Your task to perform on an android device: Show me productivity apps on the Play Store Image 0: 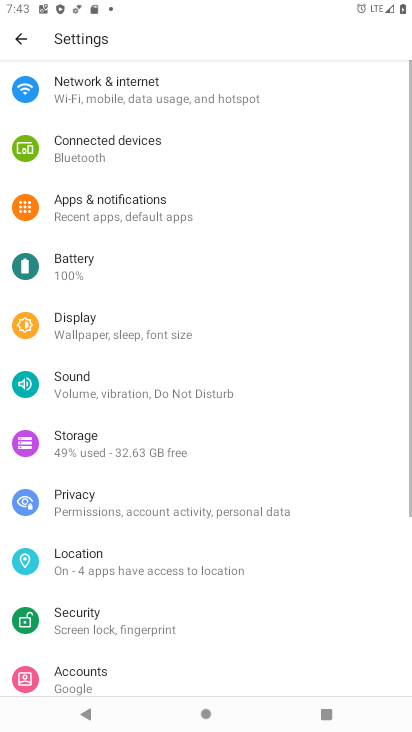
Step 0: press home button
Your task to perform on an android device: Show me productivity apps on the Play Store Image 1: 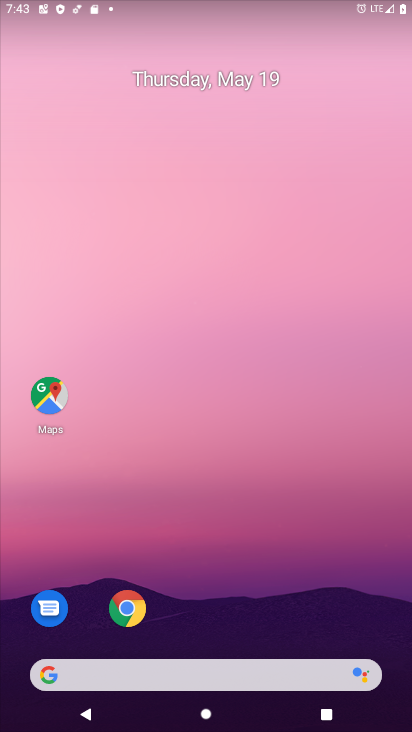
Step 1: drag from (400, 660) to (389, 335)
Your task to perform on an android device: Show me productivity apps on the Play Store Image 2: 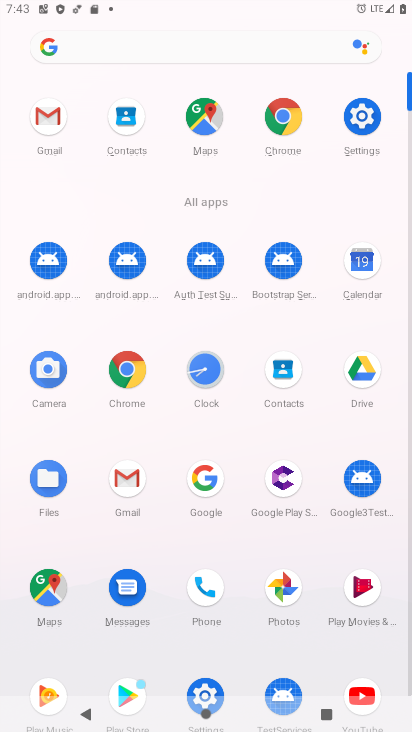
Step 2: click (405, 73)
Your task to perform on an android device: Show me productivity apps on the Play Store Image 3: 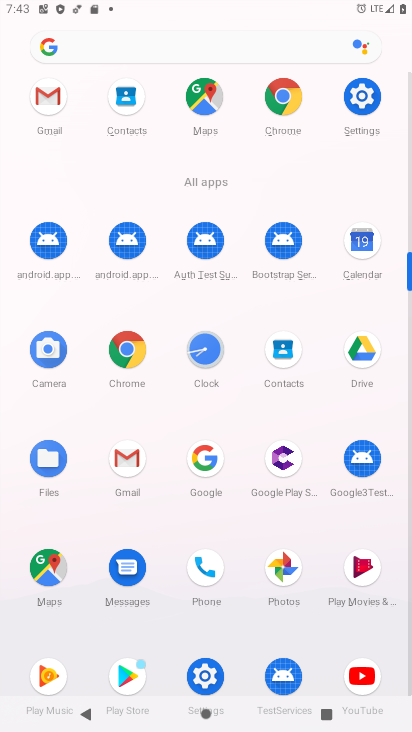
Step 3: click (136, 672)
Your task to perform on an android device: Show me productivity apps on the Play Store Image 4: 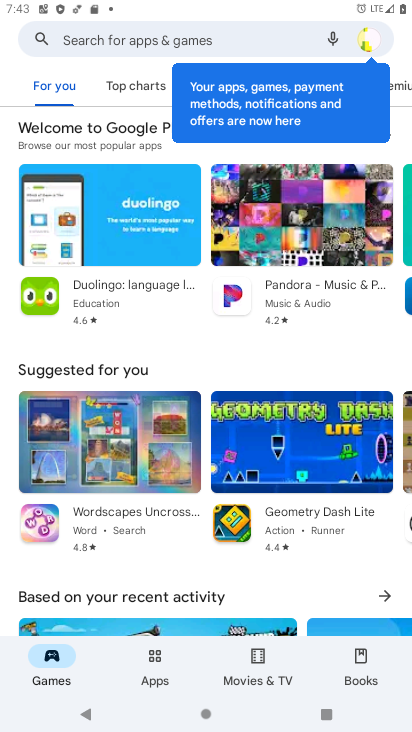
Step 4: click (85, 34)
Your task to perform on an android device: Show me productivity apps on the Play Store Image 5: 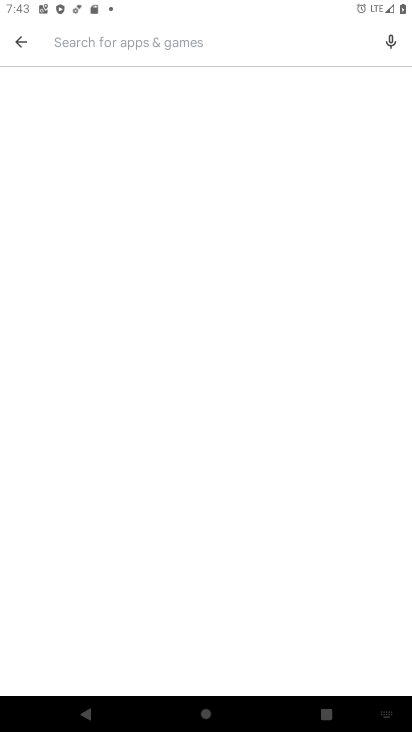
Step 5: type "productivity apps"
Your task to perform on an android device: Show me productivity apps on the Play Store Image 6: 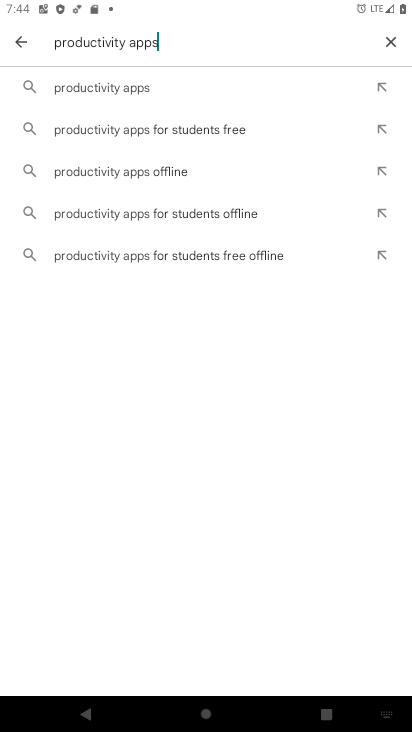
Step 6: click (98, 85)
Your task to perform on an android device: Show me productivity apps on the Play Store Image 7: 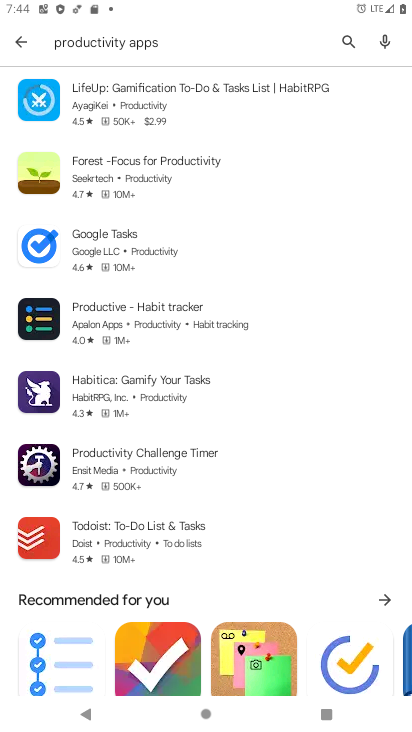
Step 7: task complete